Your task to perform on an android device: turn on improve location accuracy Image 0: 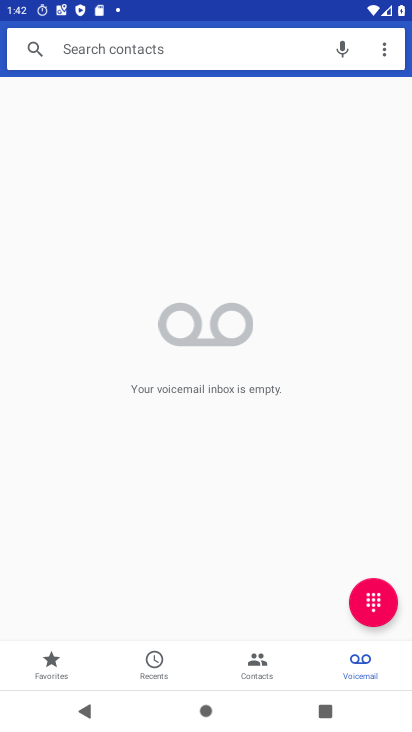
Step 0: press home button
Your task to perform on an android device: turn on improve location accuracy Image 1: 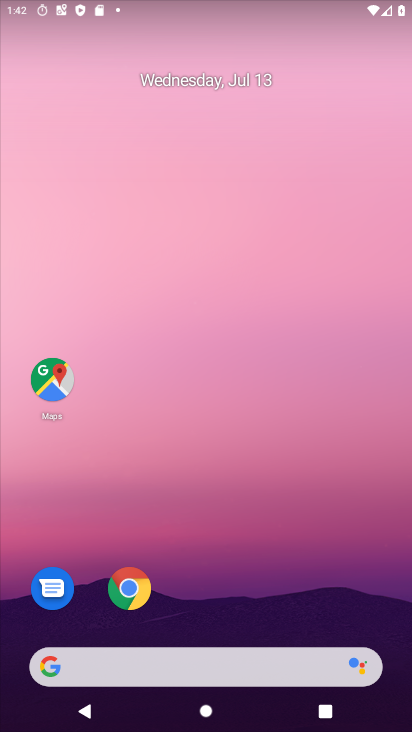
Step 1: drag from (219, 599) to (269, 340)
Your task to perform on an android device: turn on improve location accuracy Image 2: 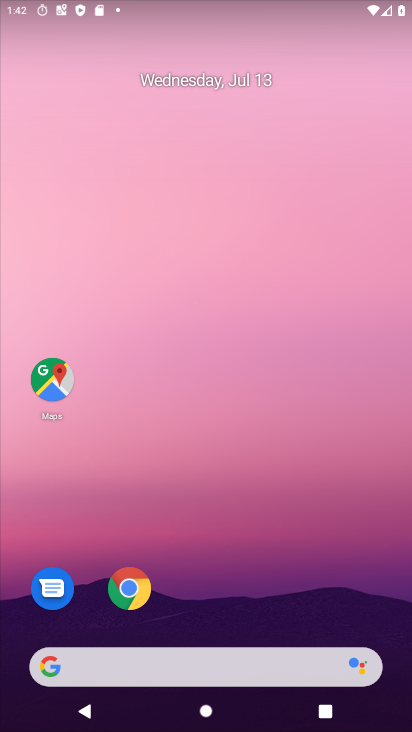
Step 2: drag from (206, 635) to (269, 282)
Your task to perform on an android device: turn on improve location accuracy Image 3: 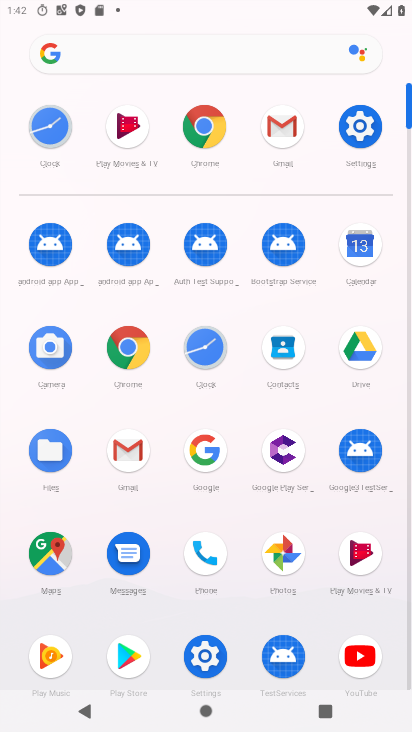
Step 3: click (364, 121)
Your task to perform on an android device: turn on improve location accuracy Image 4: 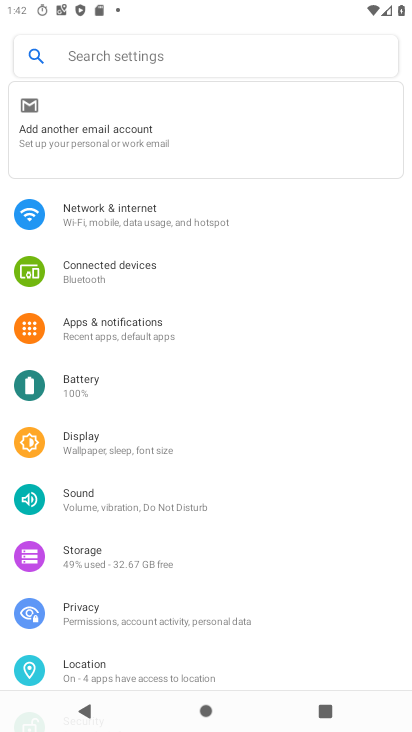
Step 4: click (139, 671)
Your task to perform on an android device: turn on improve location accuracy Image 5: 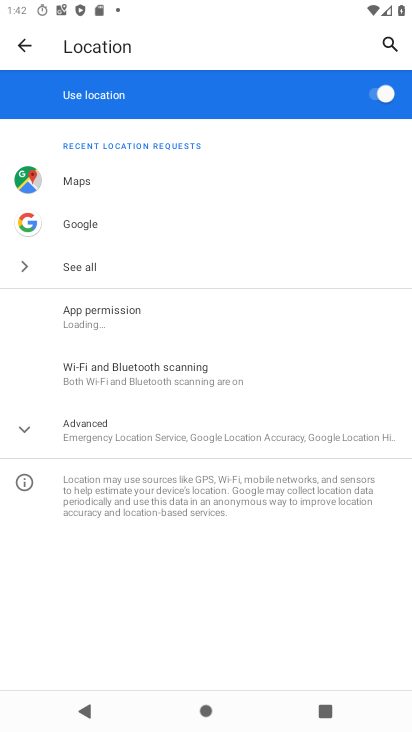
Step 5: click (211, 438)
Your task to perform on an android device: turn on improve location accuracy Image 6: 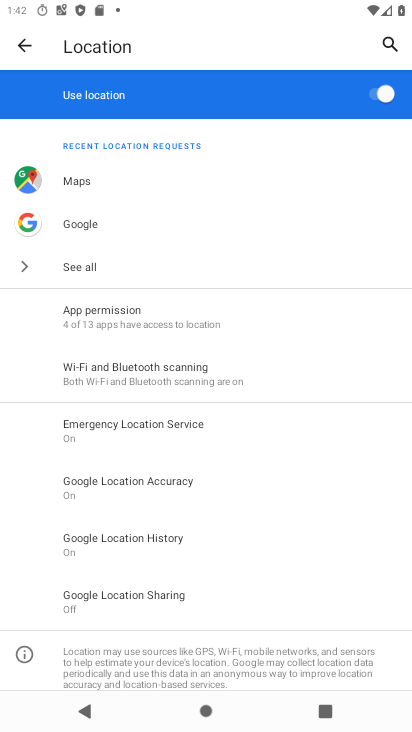
Step 6: click (192, 476)
Your task to perform on an android device: turn on improve location accuracy Image 7: 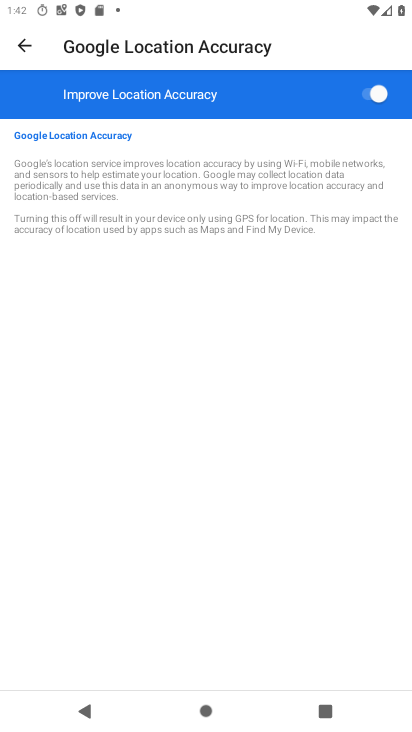
Step 7: task complete